Your task to perform on an android device: show emergency info Image 0: 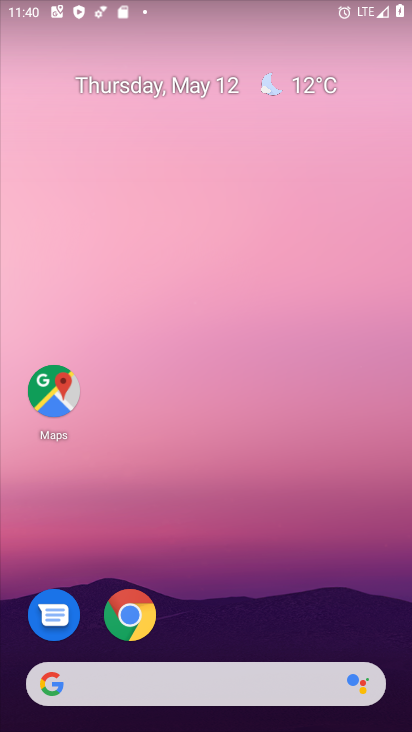
Step 0: drag from (281, 540) to (291, 83)
Your task to perform on an android device: show emergency info Image 1: 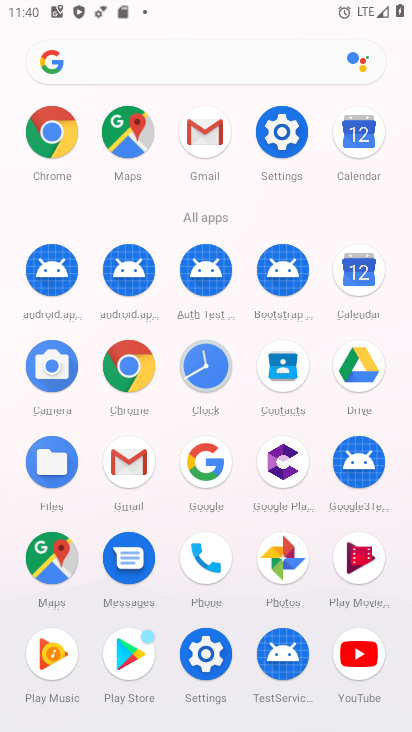
Step 1: click (290, 143)
Your task to perform on an android device: show emergency info Image 2: 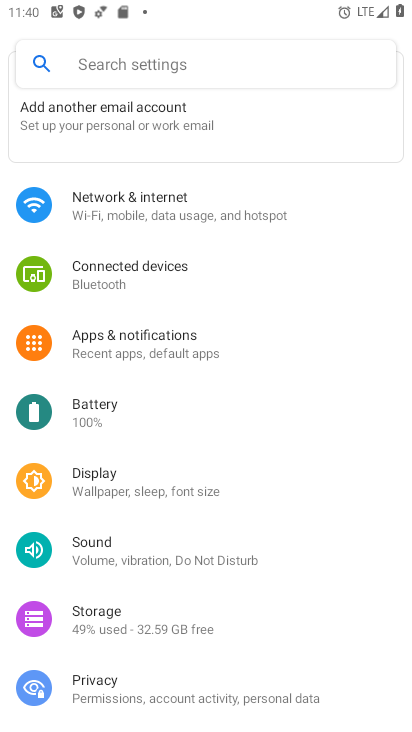
Step 2: drag from (232, 528) to (318, 36)
Your task to perform on an android device: show emergency info Image 3: 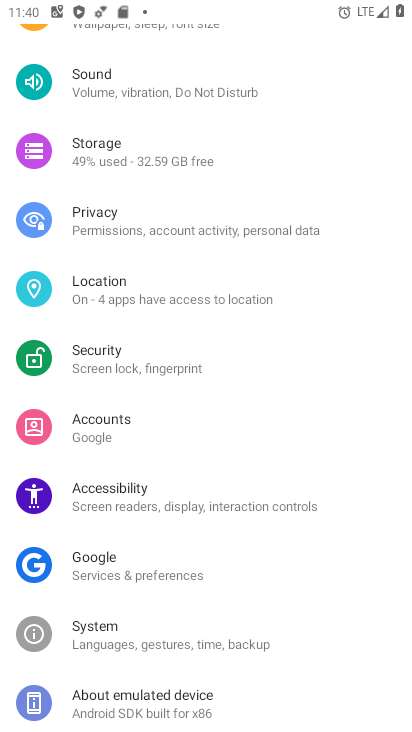
Step 3: drag from (235, 508) to (253, 379)
Your task to perform on an android device: show emergency info Image 4: 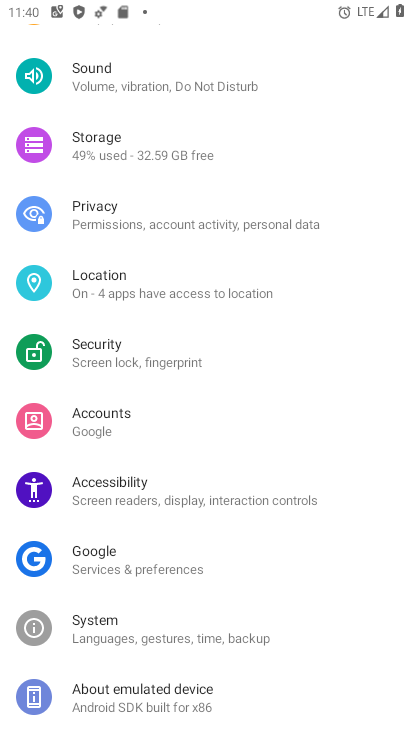
Step 4: click (153, 692)
Your task to perform on an android device: show emergency info Image 5: 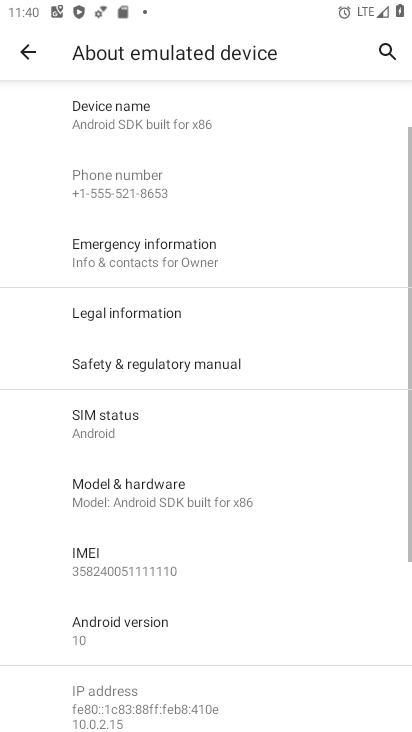
Step 5: click (236, 241)
Your task to perform on an android device: show emergency info Image 6: 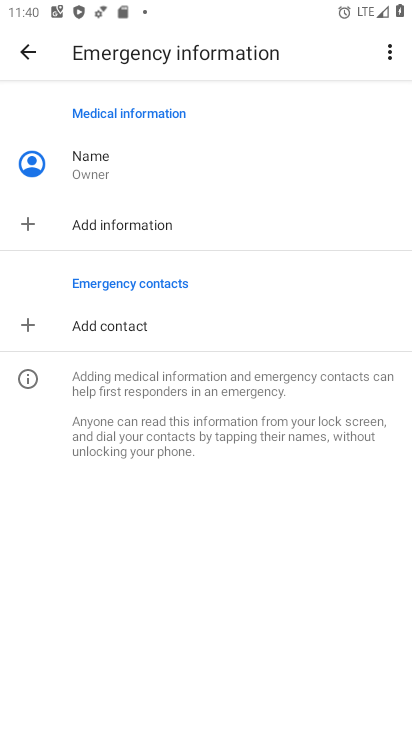
Step 6: task complete